Your task to perform on an android device: Open the map Image 0: 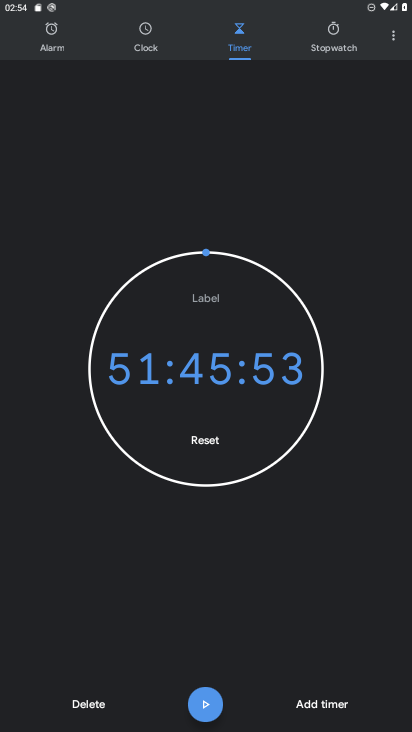
Step 0: press home button
Your task to perform on an android device: Open the map Image 1: 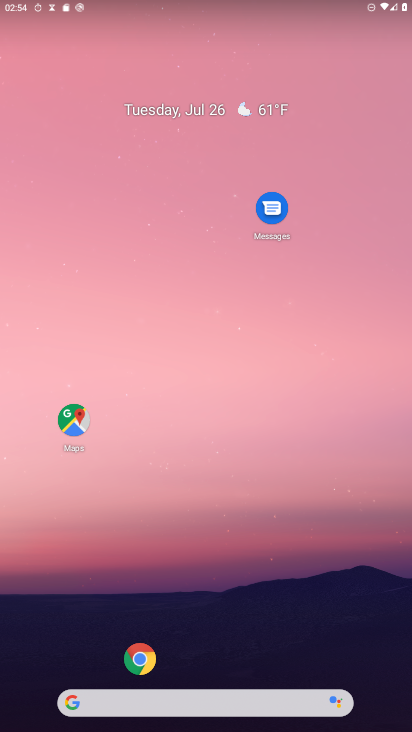
Step 1: click (72, 421)
Your task to perform on an android device: Open the map Image 2: 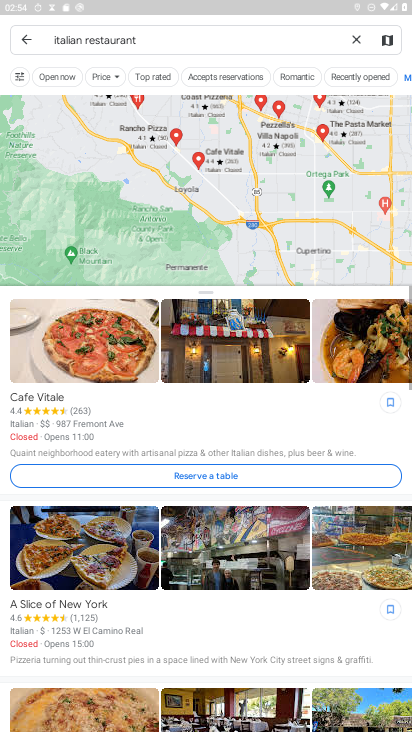
Step 2: click (26, 36)
Your task to perform on an android device: Open the map Image 3: 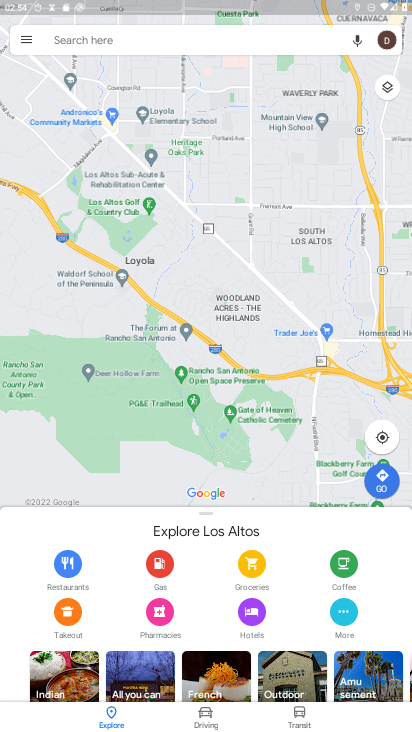
Step 3: task complete